Your task to perform on an android device: Go to battery settings Image 0: 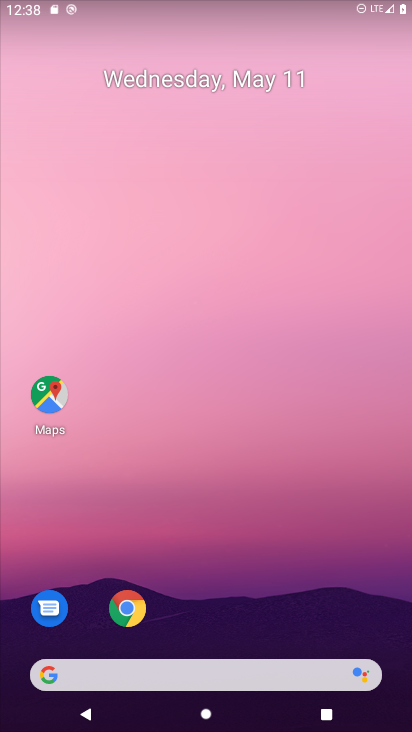
Step 0: drag from (291, 569) to (334, 85)
Your task to perform on an android device: Go to battery settings Image 1: 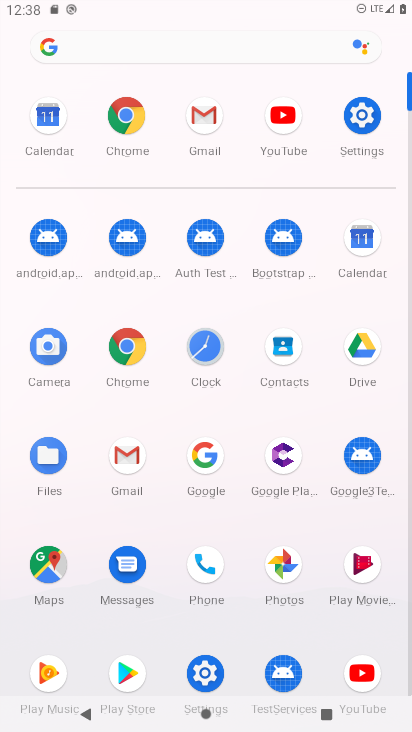
Step 1: click (358, 110)
Your task to perform on an android device: Go to battery settings Image 2: 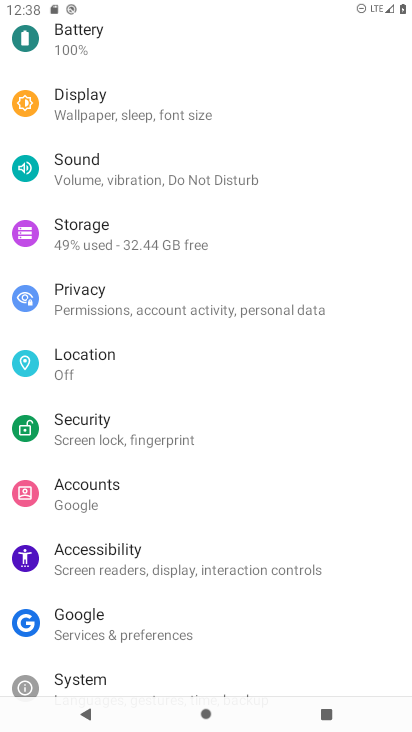
Step 2: drag from (198, 353) to (209, 519)
Your task to perform on an android device: Go to battery settings Image 3: 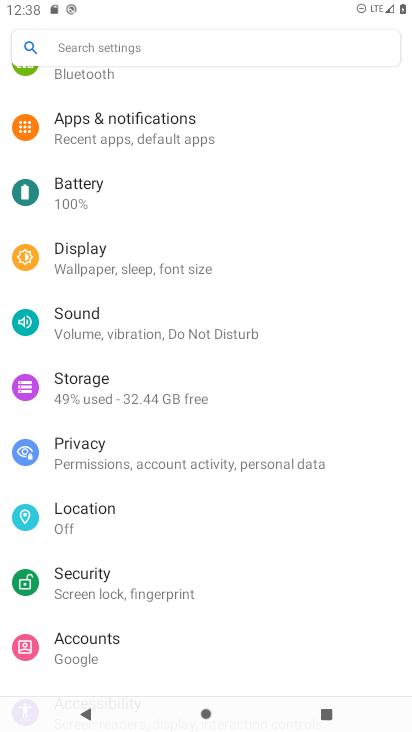
Step 3: click (192, 181)
Your task to perform on an android device: Go to battery settings Image 4: 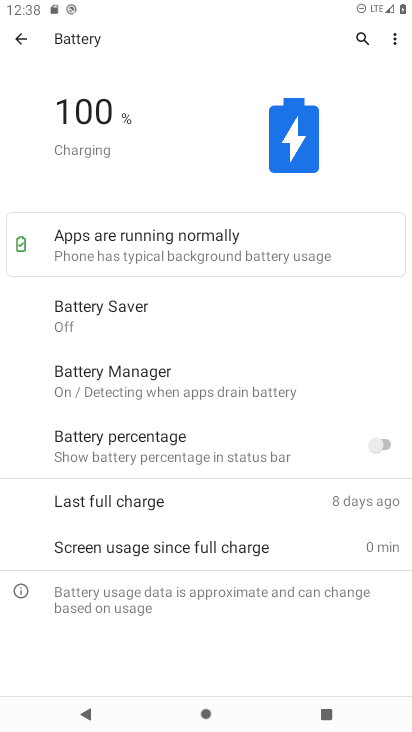
Step 4: task complete